Your task to perform on an android device: toggle notification dots Image 0: 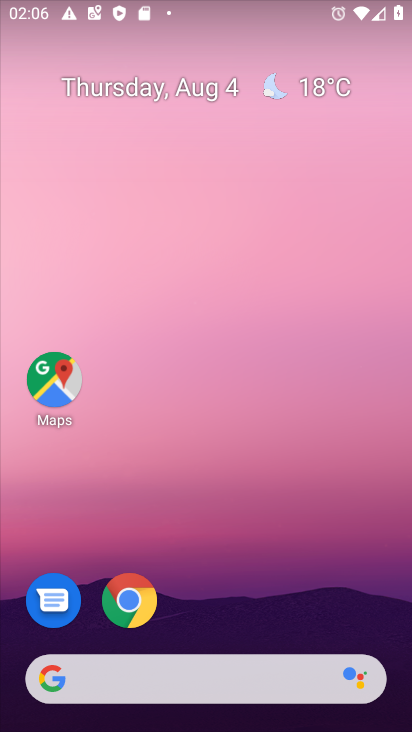
Step 0: press home button
Your task to perform on an android device: toggle notification dots Image 1: 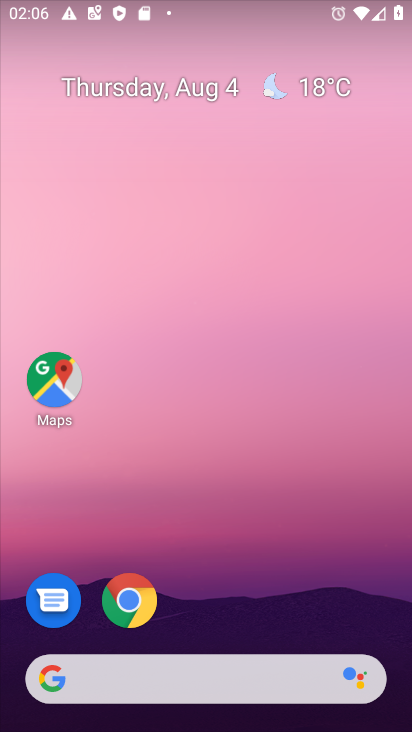
Step 1: drag from (173, 647) to (311, 71)
Your task to perform on an android device: toggle notification dots Image 2: 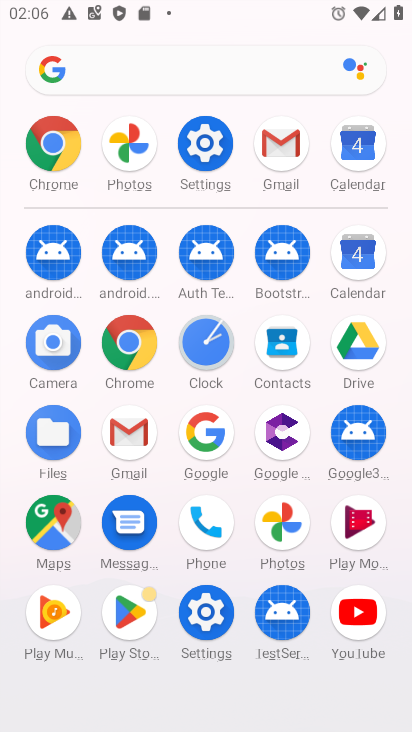
Step 2: click (206, 141)
Your task to perform on an android device: toggle notification dots Image 3: 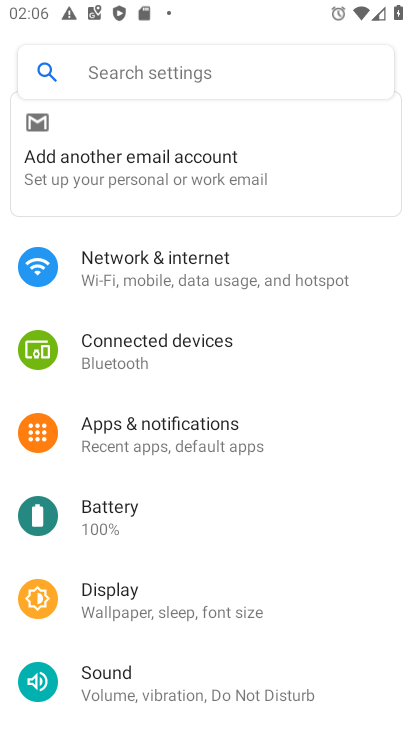
Step 3: drag from (227, 565) to (319, 203)
Your task to perform on an android device: toggle notification dots Image 4: 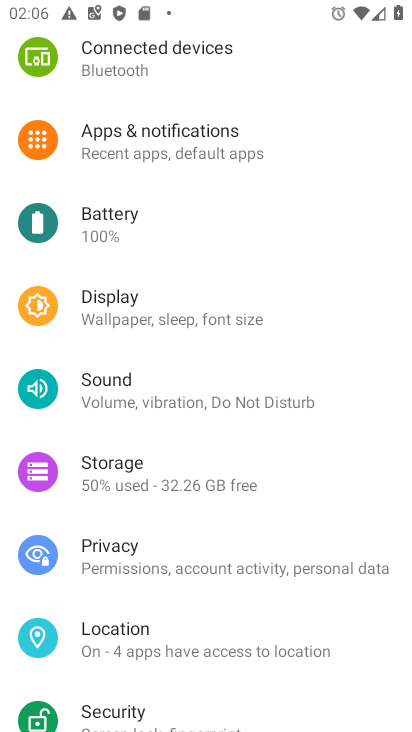
Step 4: click (208, 142)
Your task to perform on an android device: toggle notification dots Image 5: 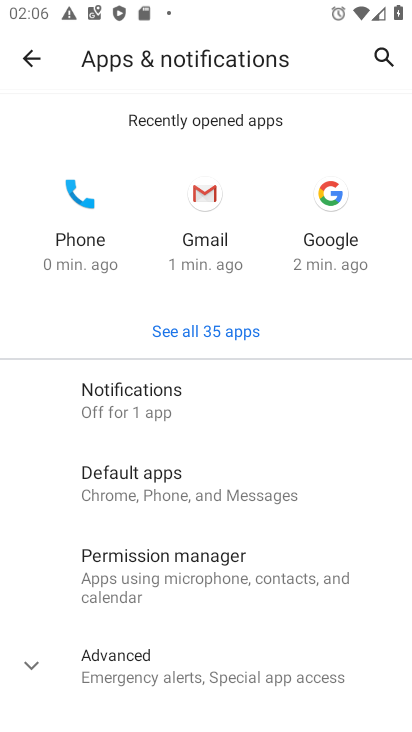
Step 5: click (154, 398)
Your task to perform on an android device: toggle notification dots Image 6: 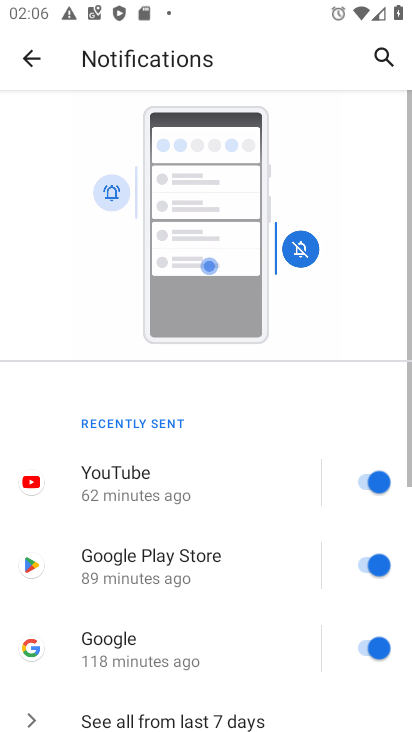
Step 6: drag from (272, 624) to (349, 113)
Your task to perform on an android device: toggle notification dots Image 7: 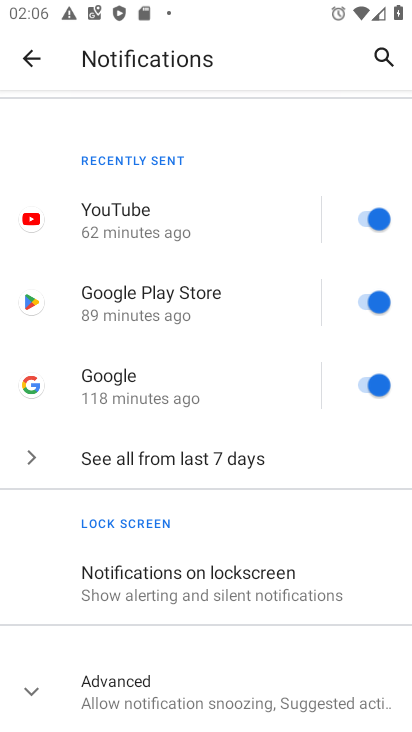
Step 7: click (165, 679)
Your task to perform on an android device: toggle notification dots Image 8: 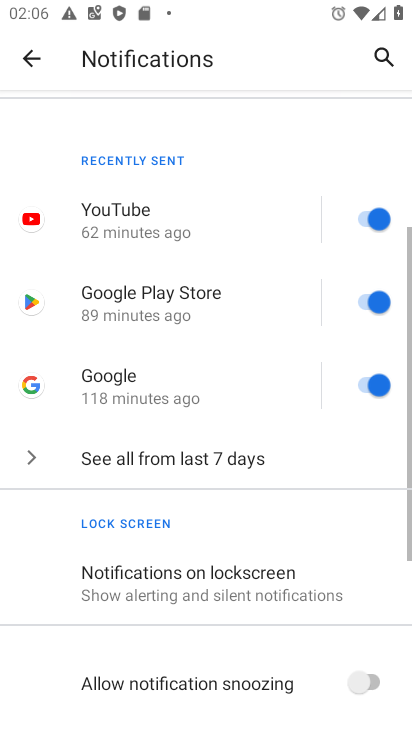
Step 8: drag from (239, 572) to (308, 40)
Your task to perform on an android device: toggle notification dots Image 9: 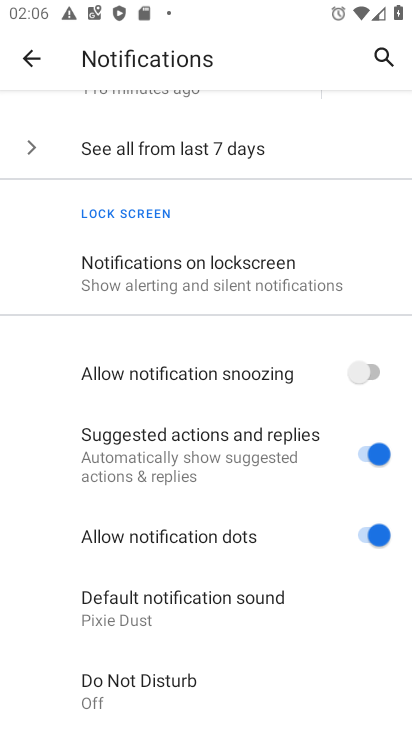
Step 9: click (370, 537)
Your task to perform on an android device: toggle notification dots Image 10: 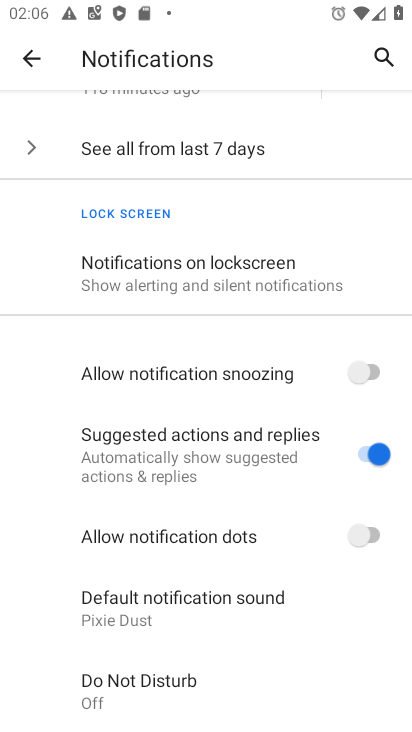
Step 10: task complete